Your task to perform on an android device: Go to accessibility settings Image 0: 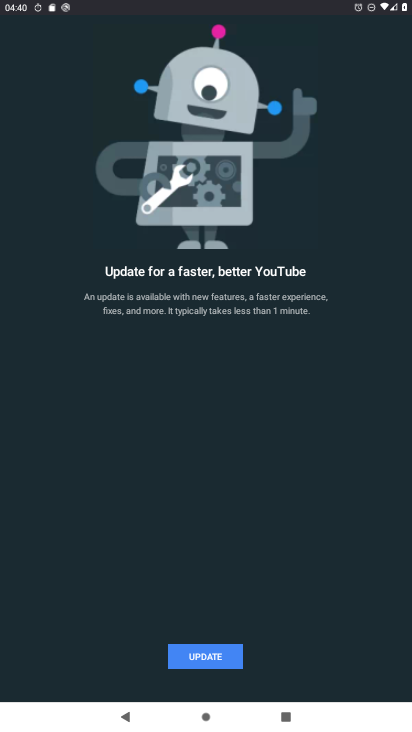
Step 0: press home button
Your task to perform on an android device: Go to accessibility settings Image 1: 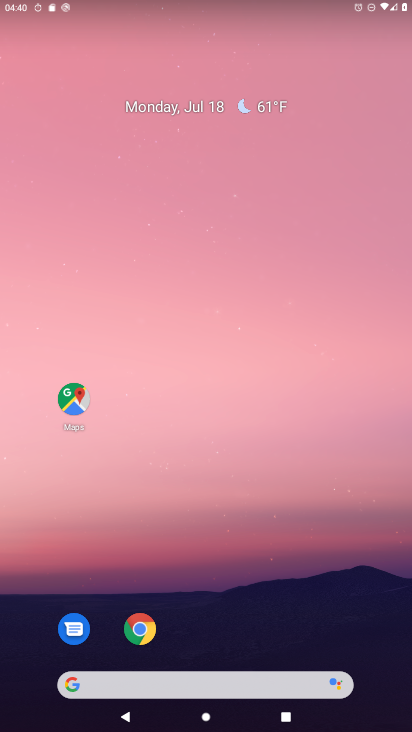
Step 1: drag from (178, 686) to (284, 129)
Your task to perform on an android device: Go to accessibility settings Image 2: 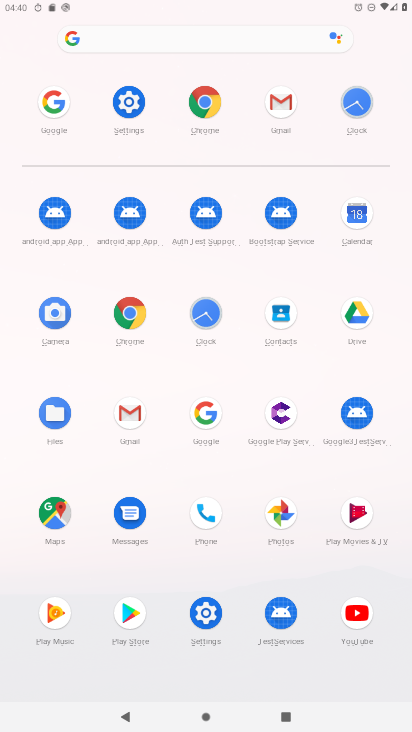
Step 2: click (207, 612)
Your task to perform on an android device: Go to accessibility settings Image 3: 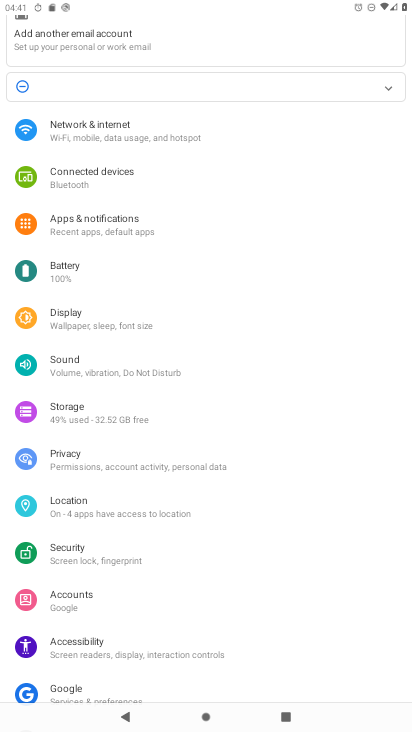
Step 3: click (103, 639)
Your task to perform on an android device: Go to accessibility settings Image 4: 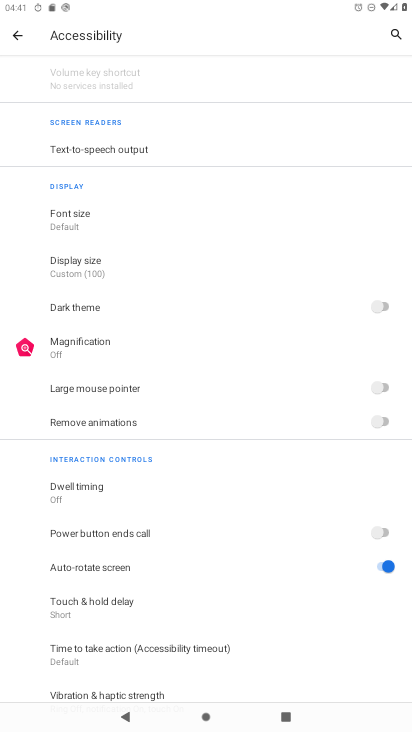
Step 4: task complete